Your task to perform on an android device: Go to display settings Image 0: 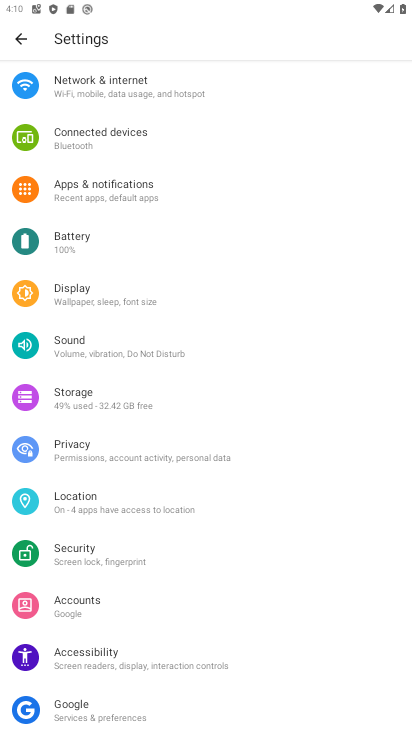
Step 0: click (67, 308)
Your task to perform on an android device: Go to display settings Image 1: 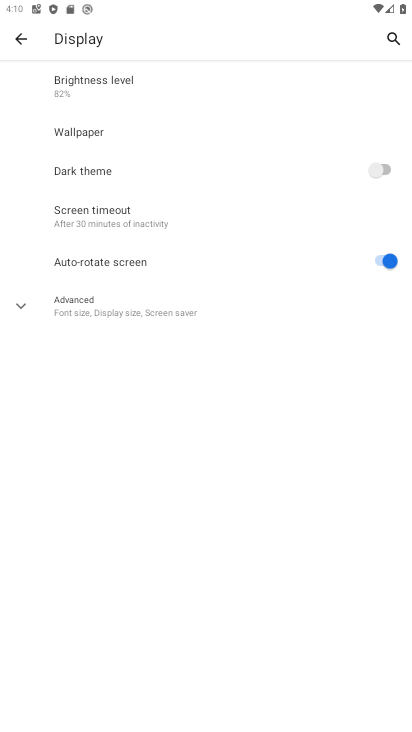
Step 1: task complete